Your task to perform on an android device: Open Google Chrome and click the shortcut for Amazon.com Image 0: 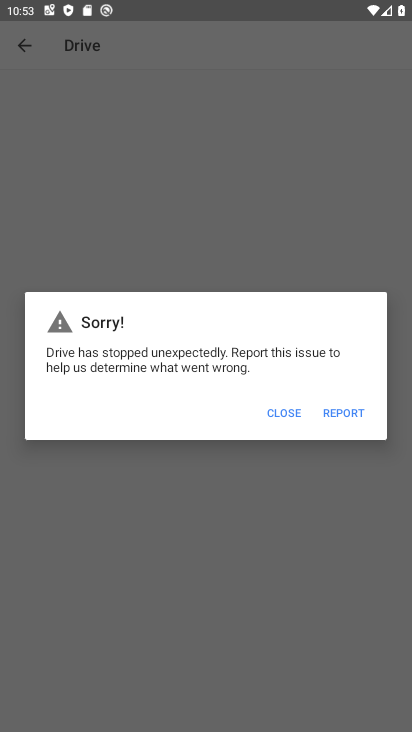
Step 0: press home button
Your task to perform on an android device: Open Google Chrome and click the shortcut for Amazon.com Image 1: 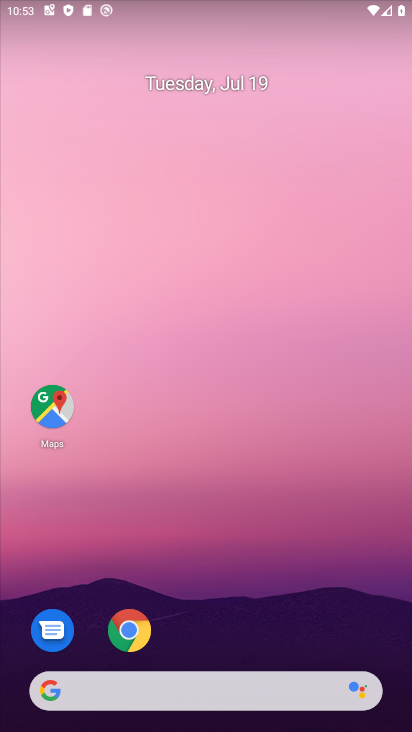
Step 1: click (139, 649)
Your task to perform on an android device: Open Google Chrome and click the shortcut for Amazon.com Image 2: 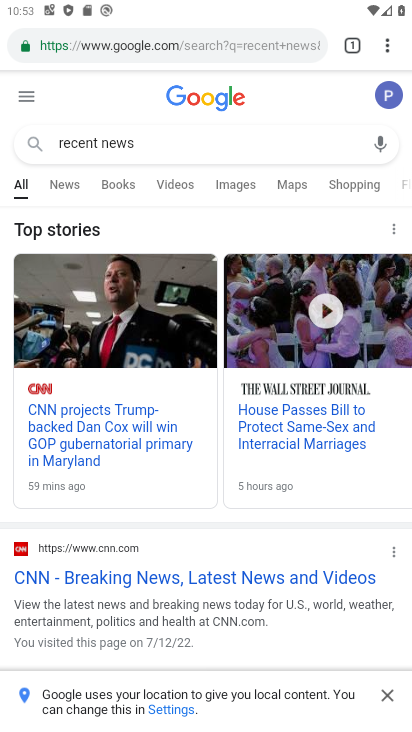
Step 2: click (353, 43)
Your task to perform on an android device: Open Google Chrome and click the shortcut for Amazon.com Image 3: 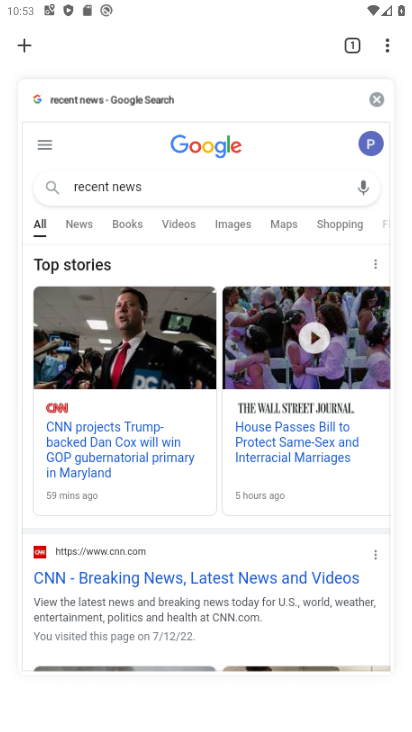
Step 3: click (23, 48)
Your task to perform on an android device: Open Google Chrome and click the shortcut for Amazon.com Image 4: 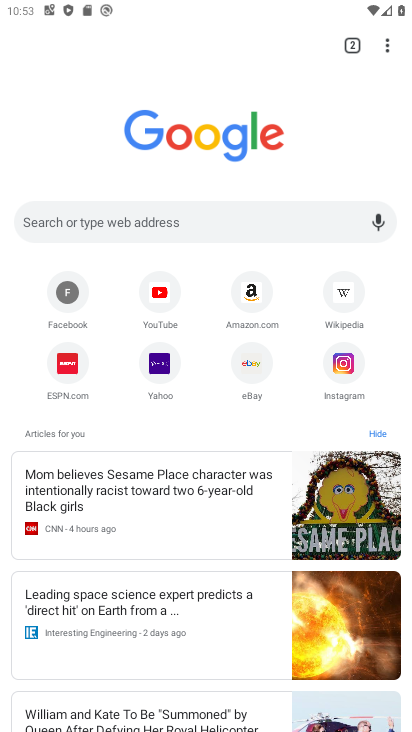
Step 4: click (236, 317)
Your task to perform on an android device: Open Google Chrome and click the shortcut for Amazon.com Image 5: 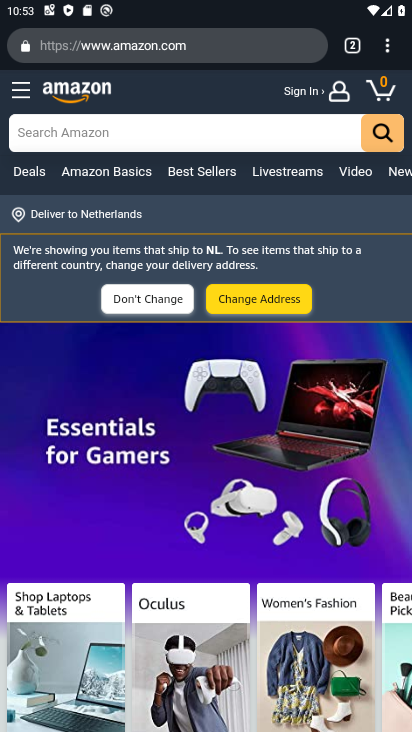
Step 5: task complete